Your task to perform on an android device: Find coffee shops on Maps Image 0: 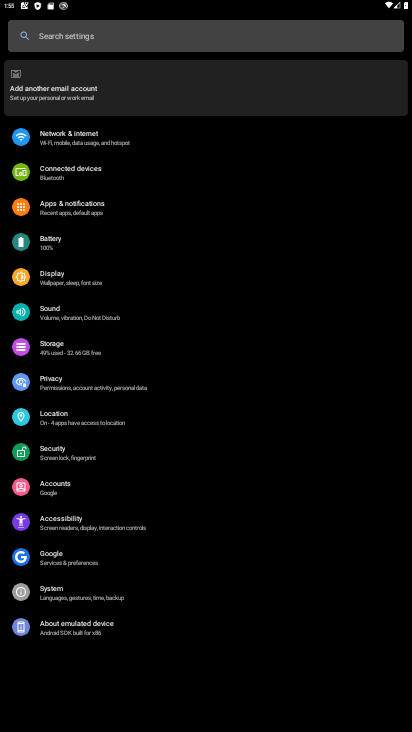
Step 0: press home button
Your task to perform on an android device: Find coffee shops on Maps Image 1: 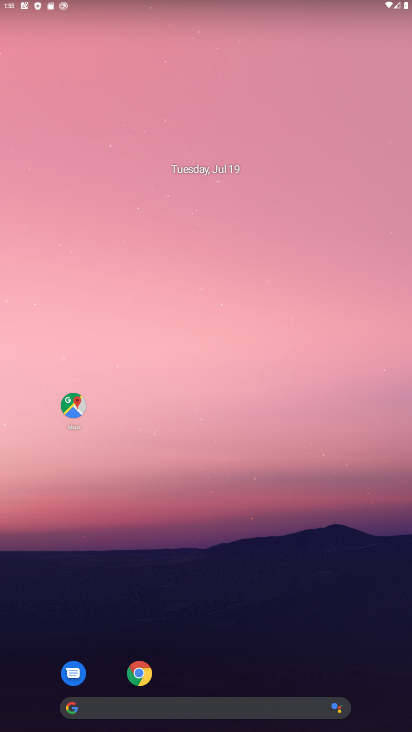
Step 1: drag from (177, 709) to (273, 256)
Your task to perform on an android device: Find coffee shops on Maps Image 2: 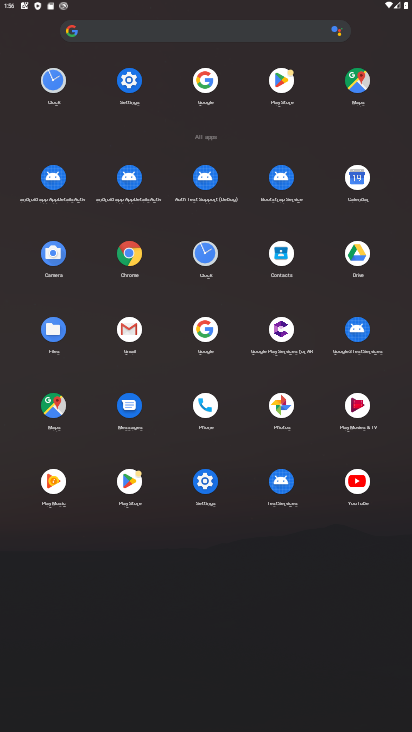
Step 2: click (53, 407)
Your task to perform on an android device: Find coffee shops on Maps Image 3: 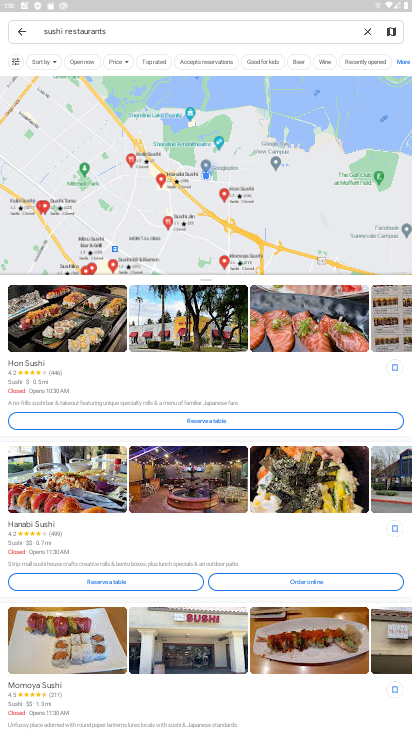
Step 3: click (366, 29)
Your task to perform on an android device: Find coffee shops on Maps Image 4: 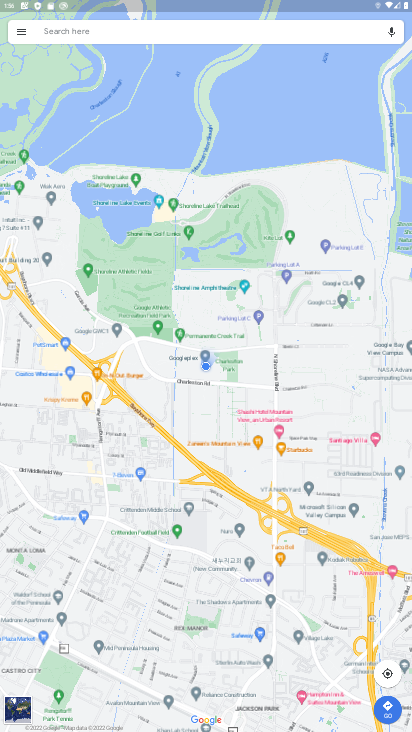
Step 4: click (291, 39)
Your task to perform on an android device: Find coffee shops on Maps Image 5: 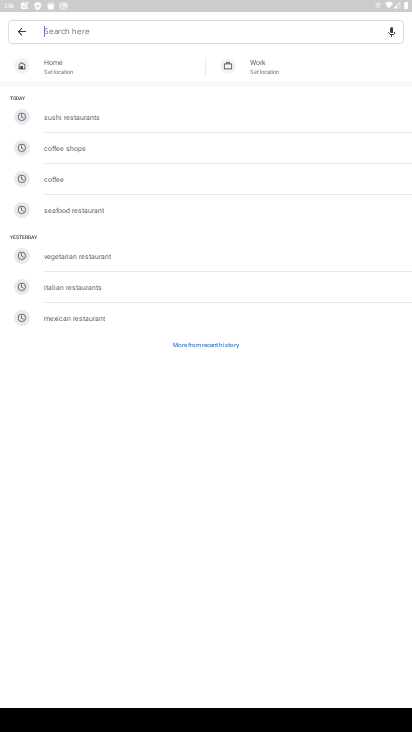
Step 5: type "coffee shops"
Your task to perform on an android device: Find coffee shops on Maps Image 6: 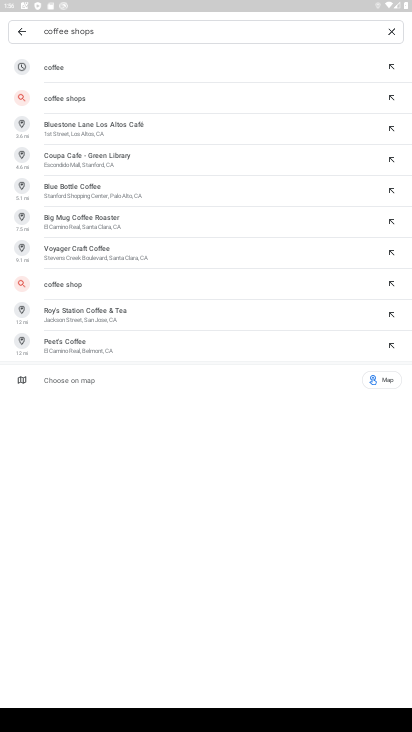
Step 6: click (63, 96)
Your task to perform on an android device: Find coffee shops on Maps Image 7: 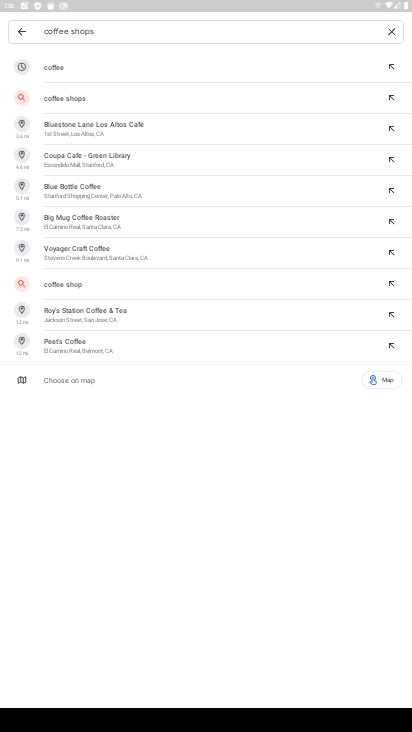
Step 7: click (63, 96)
Your task to perform on an android device: Find coffee shops on Maps Image 8: 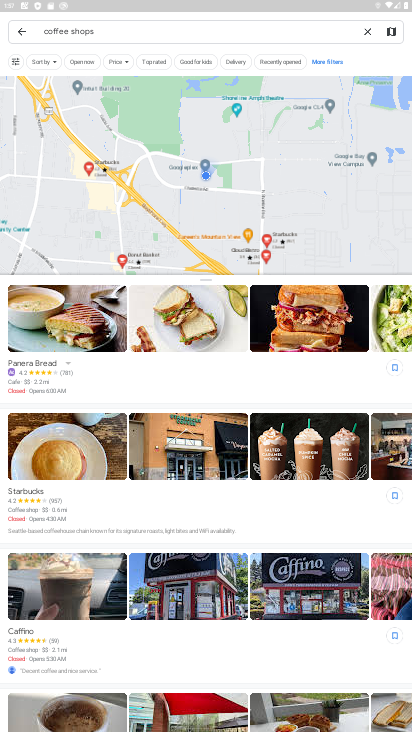
Step 8: task complete